Your task to perform on an android device: Show me the best rated 42 inch TV on Walmart. Image 0: 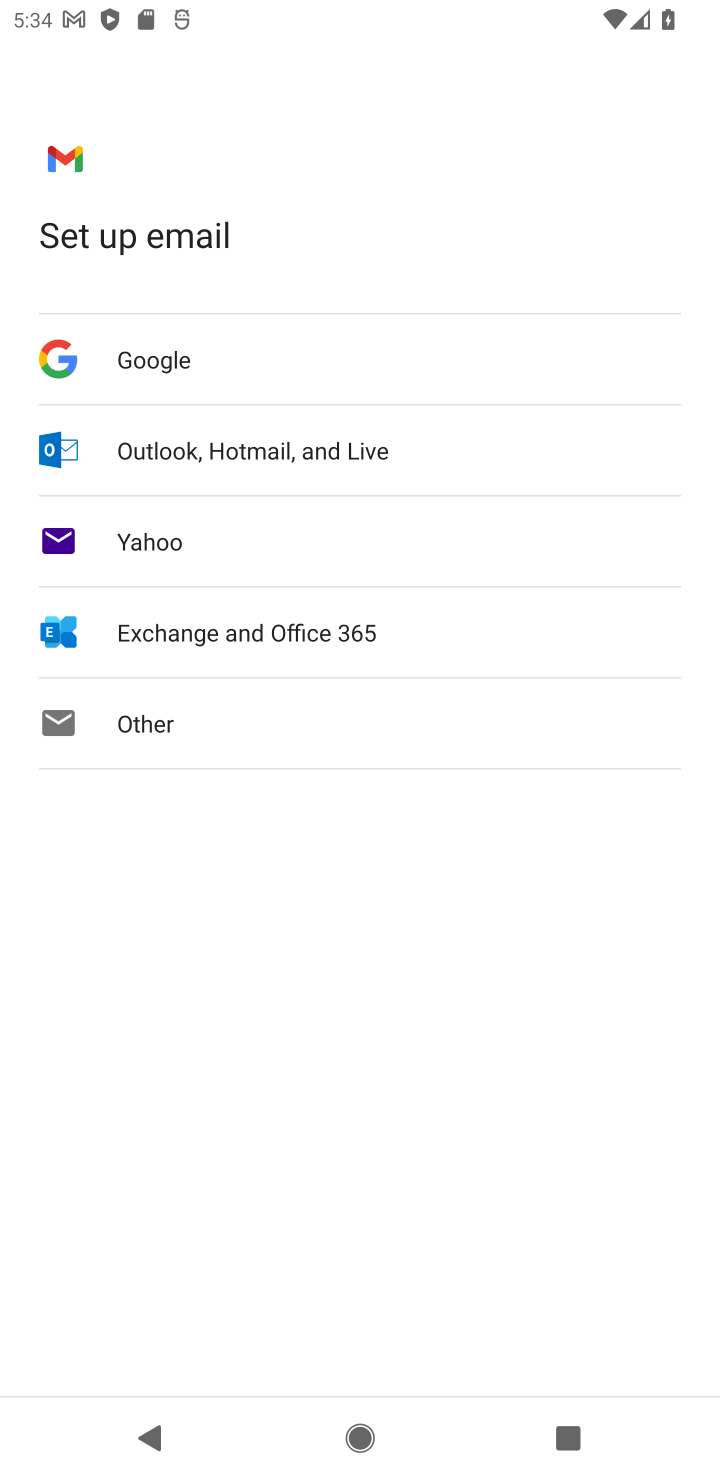
Step 0: press home button
Your task to perform on an android device: Show me the best rated 42 inch TV on Walmart. Image 1: 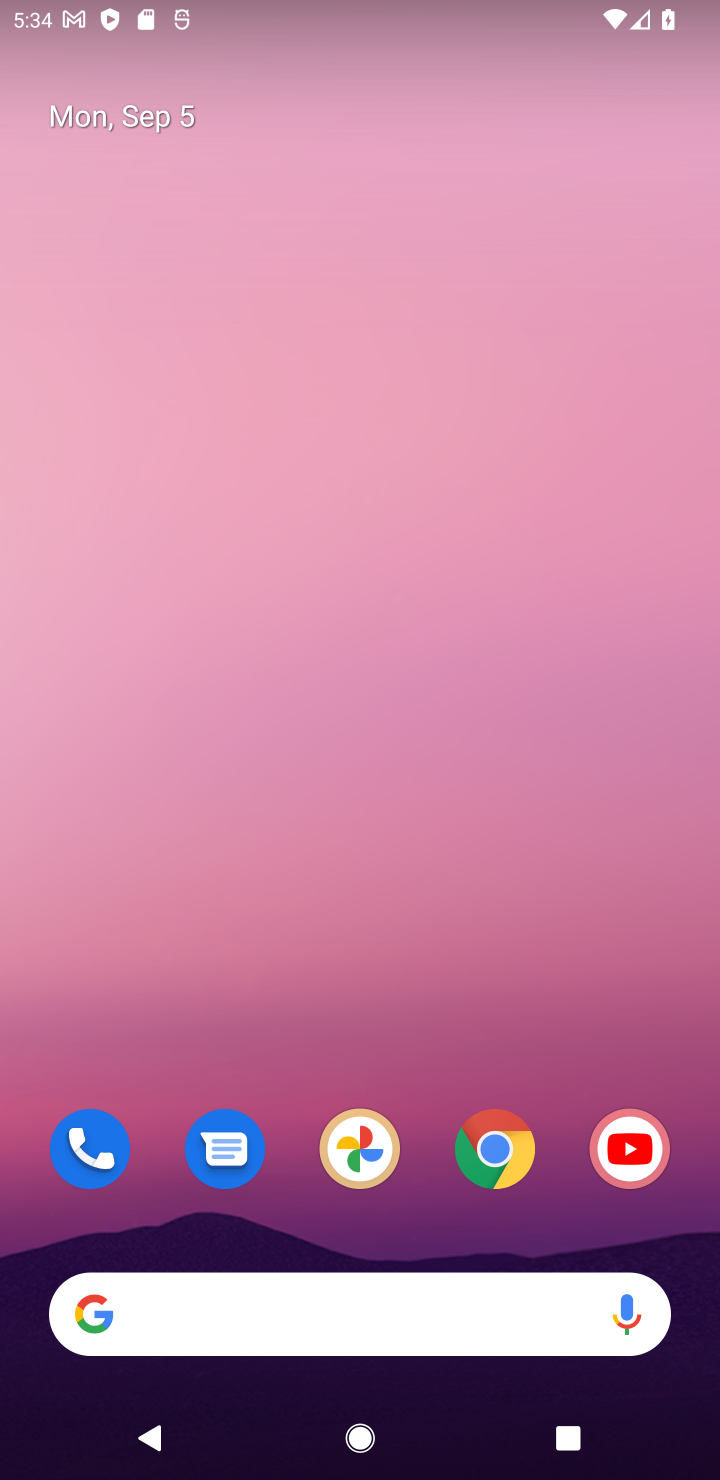
Step 1: click (504, 1149)
Your task to perform on an android device: Show me the best rated 42 inch TV on Walmart. Image 2: 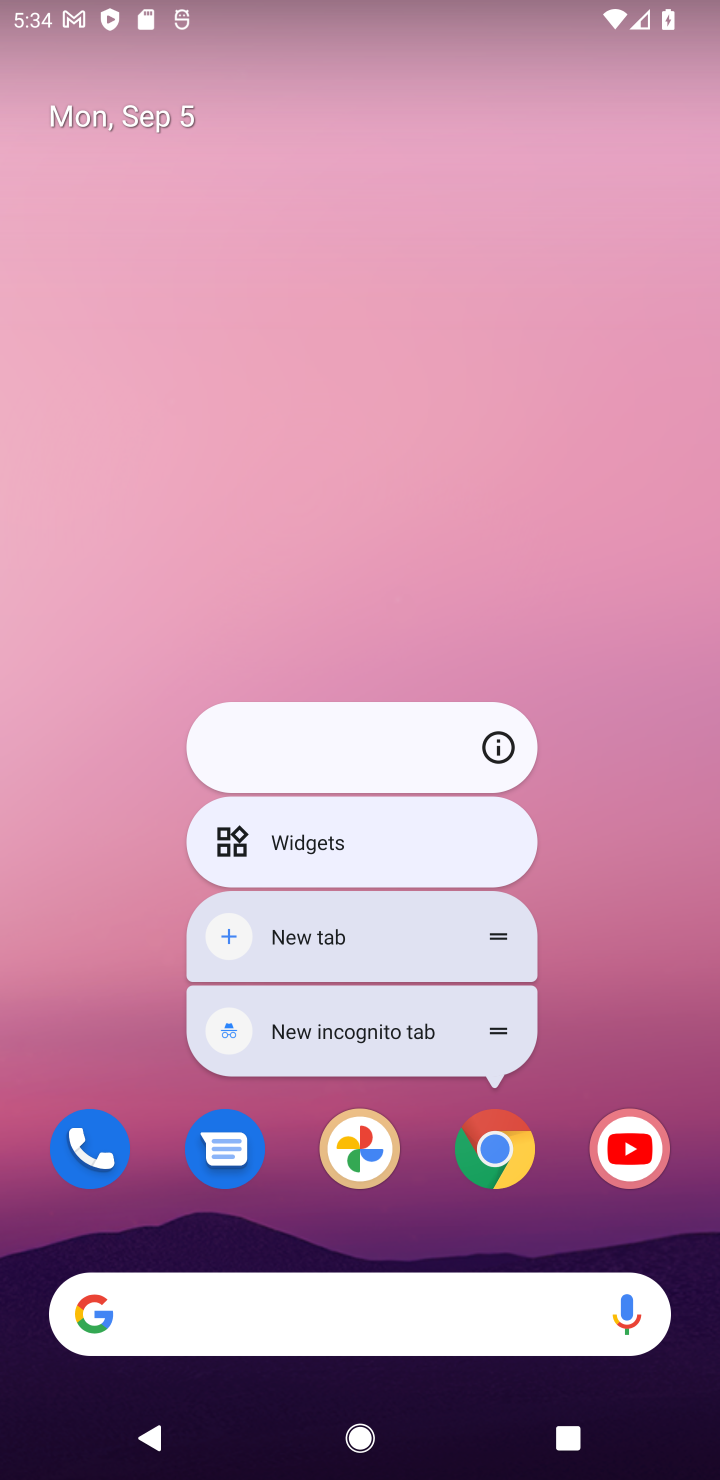
Step 2: click (491, 1162)
Your task to perform on an android device: Show me the best rated 42 inch TV on Walmart. Image 3: 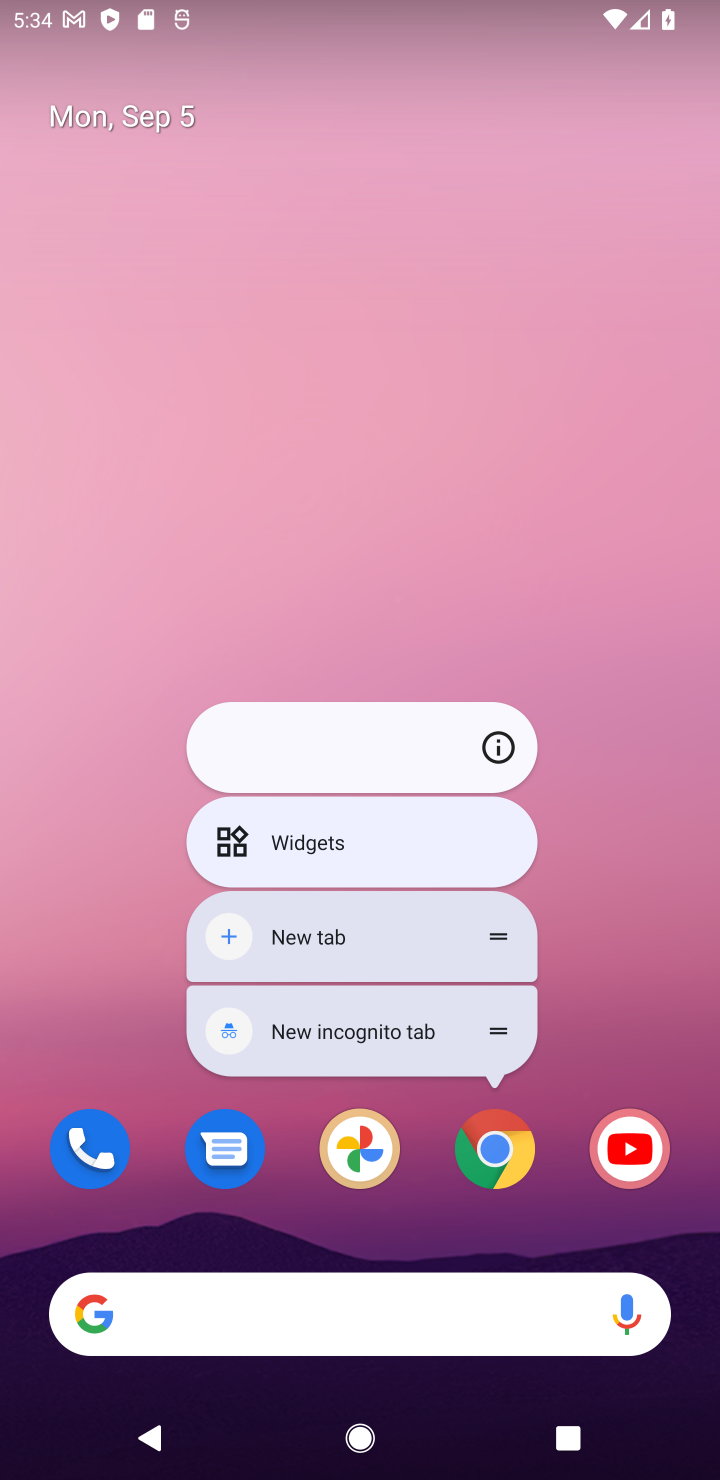
Step 3: click (491, 1156)
Your task to perform on an android device: Show me the best rated 42 inch TV on Walmart. Image 4: 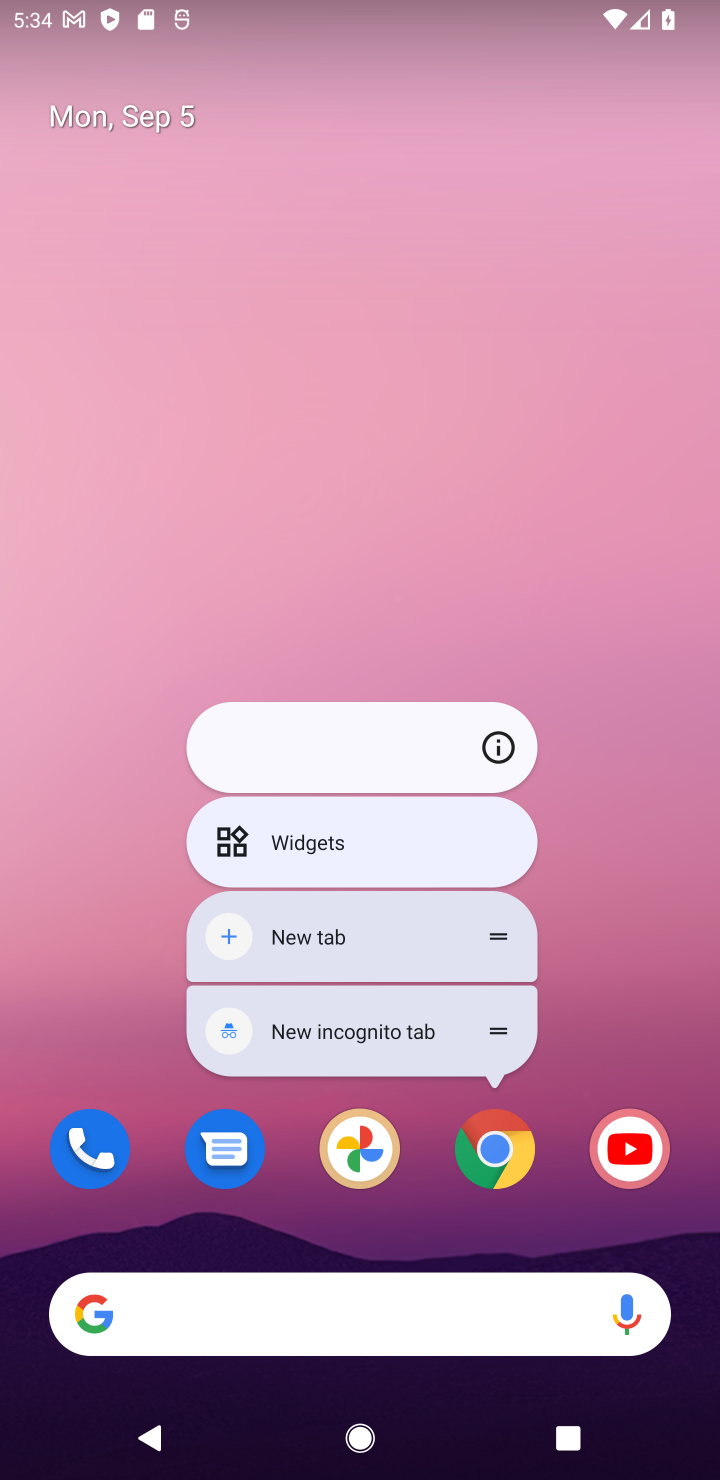
Step 4: click (651, 950)
Your task to perform on an android device: Show me the best rated 42 inch TV on Walmart. Image 5: 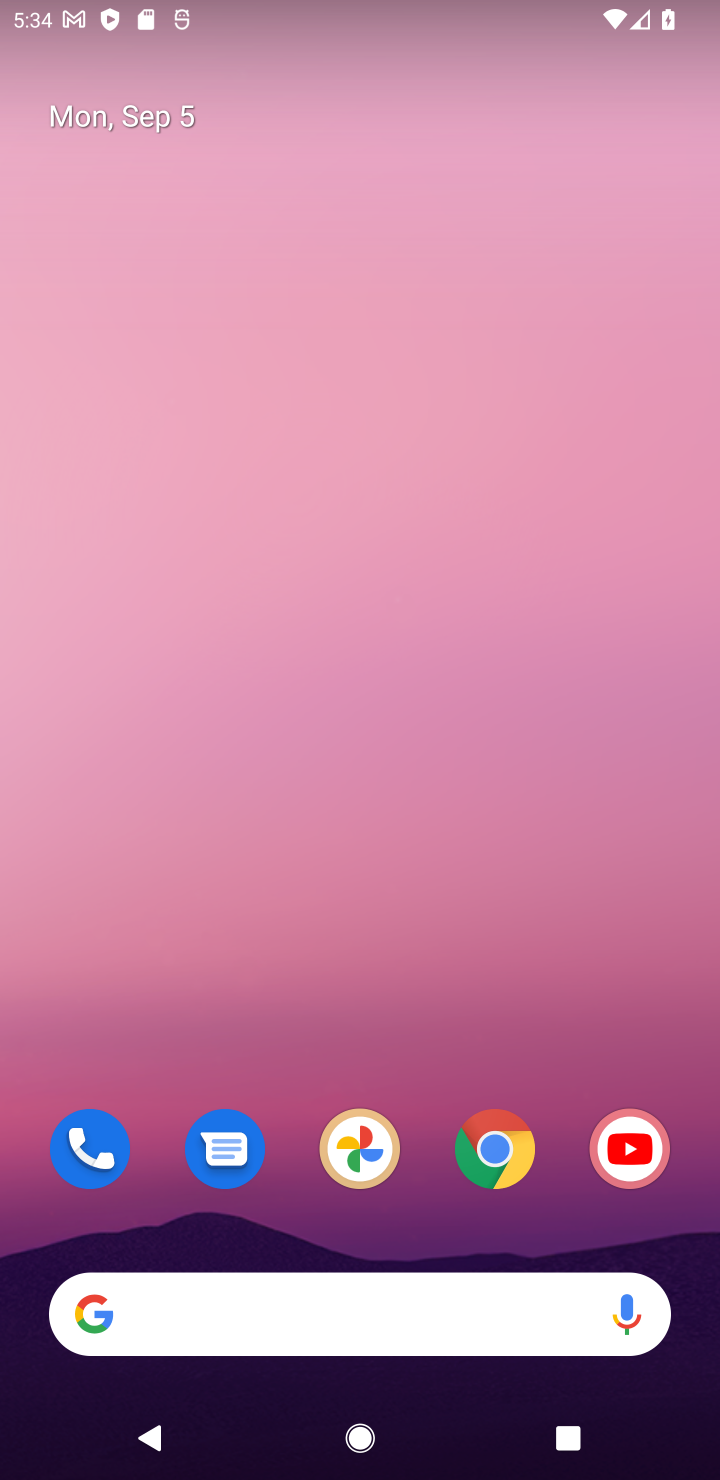
Step 5: click (494, 1156)
Your task to perform on an android device: Show me the best rated 42 inch TV on Walmart. Image 6: 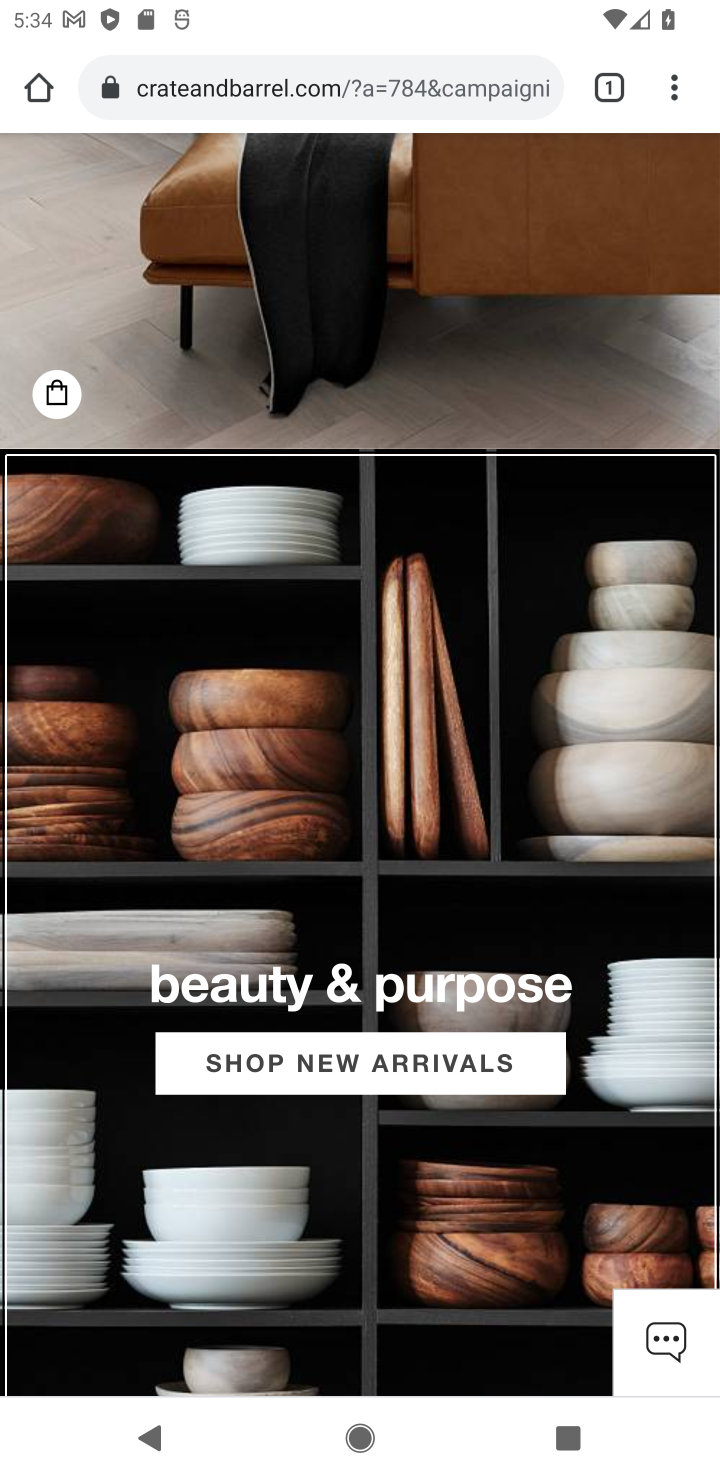
Step 6: click (319, 57)
Your task to perform on an android device: Show me the best rated 42 inch TV on Walmart. Image 7: 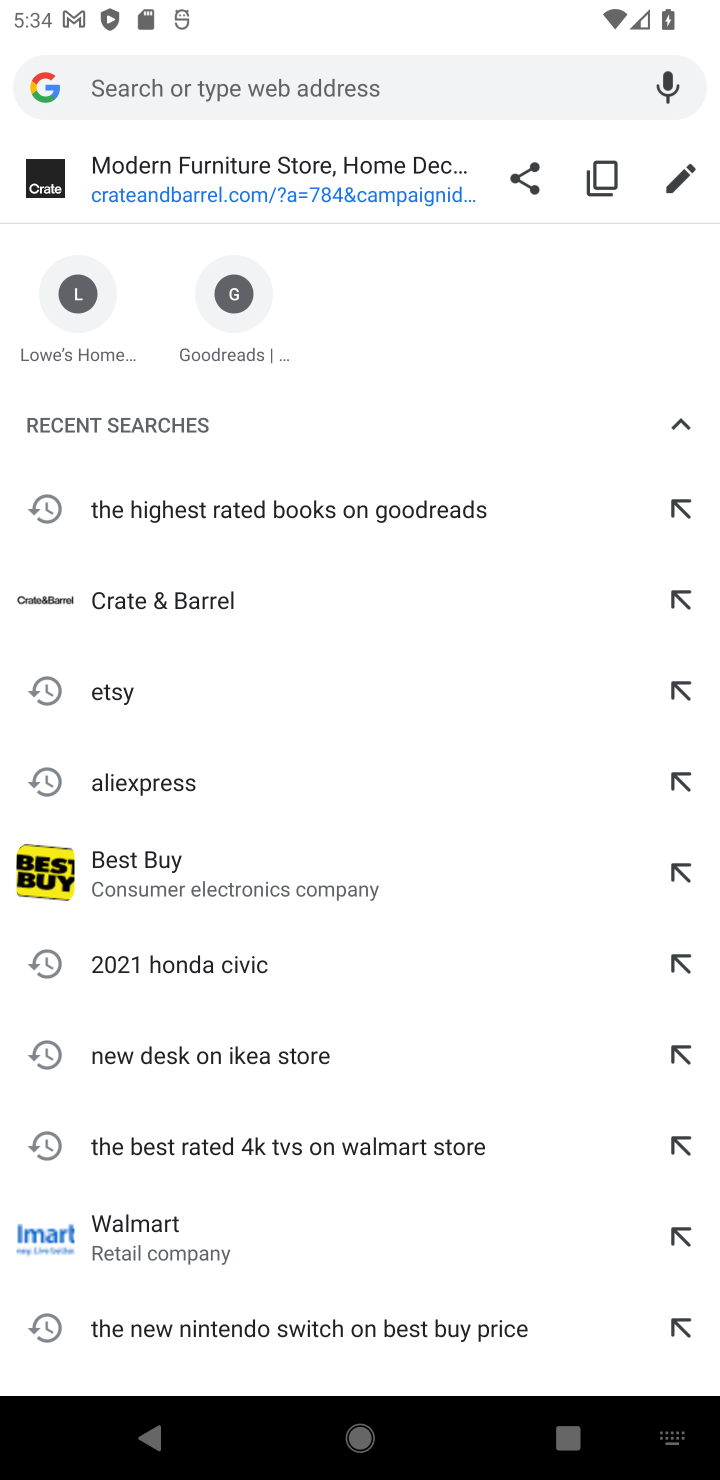
Step 7: type "Walmart"
Your task to perform on an android device: Show me the best rated 42 inch TV on Walmart. Image 8: 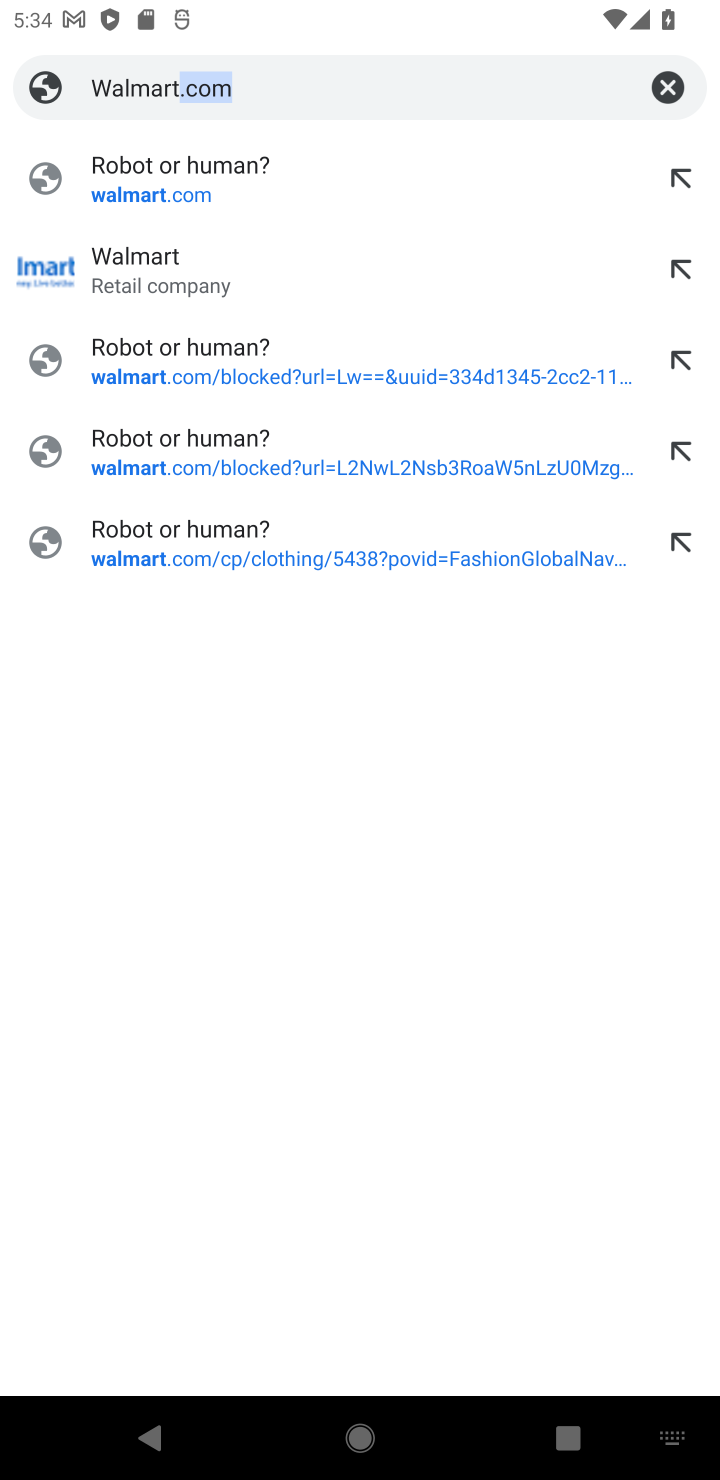
Step 8: click (143, 256)
Your task to perform on an android device: Show me the best rated 42 inch TV on Walmart. Image 9: 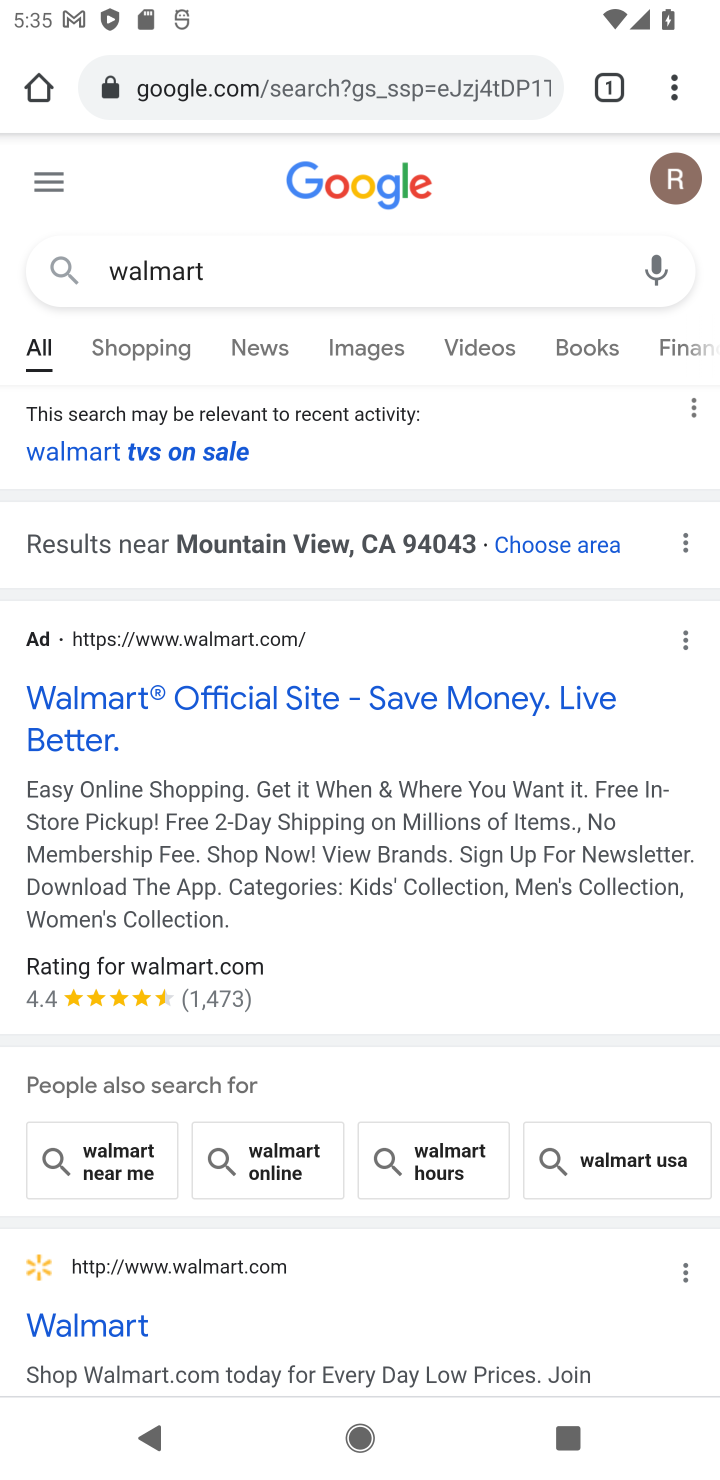
Step 9: click (220, 713)
Your task to perform on an android device: Show me the best rated 42 inch TV on Walmart. Image 10: 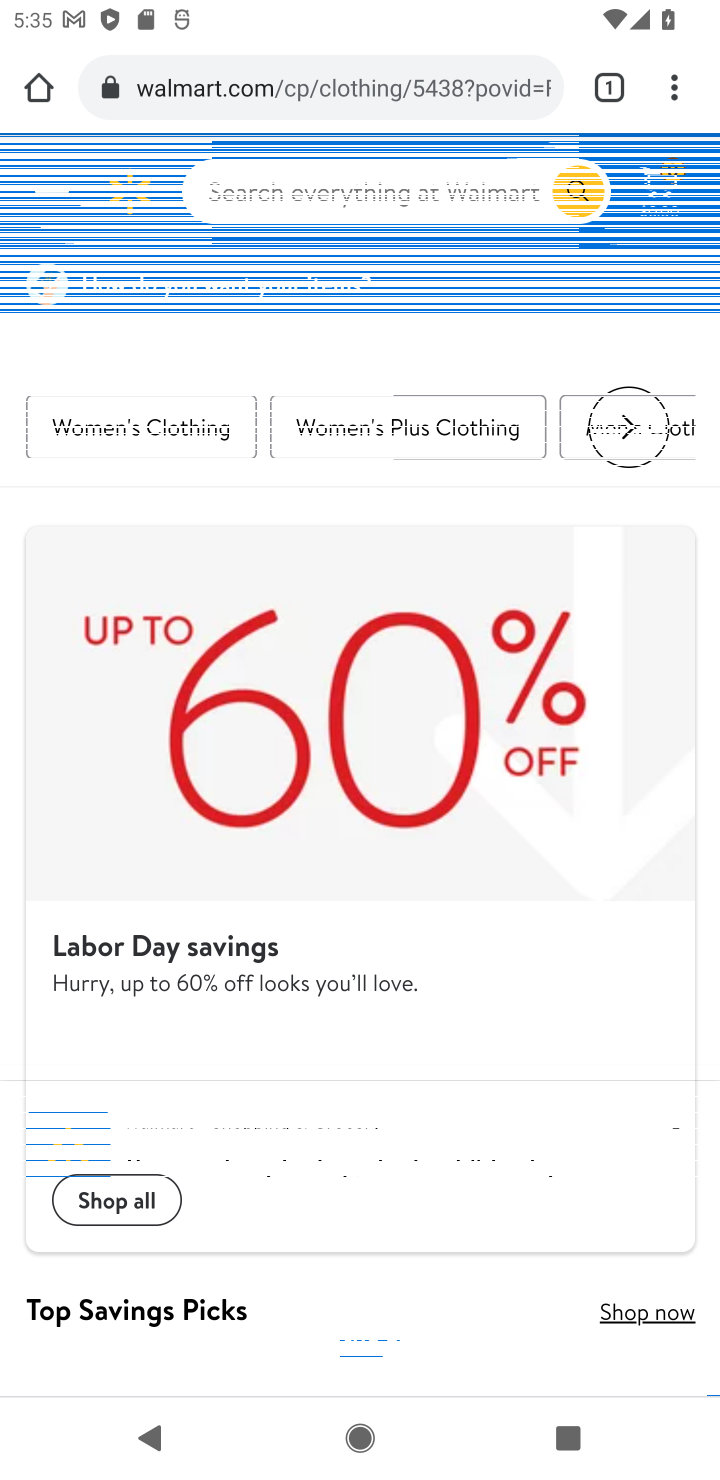
Step 10: click (317, 177)
Your task to perform on an android device: Show me the best rated 42 inch TV on Walmart. Image 11: 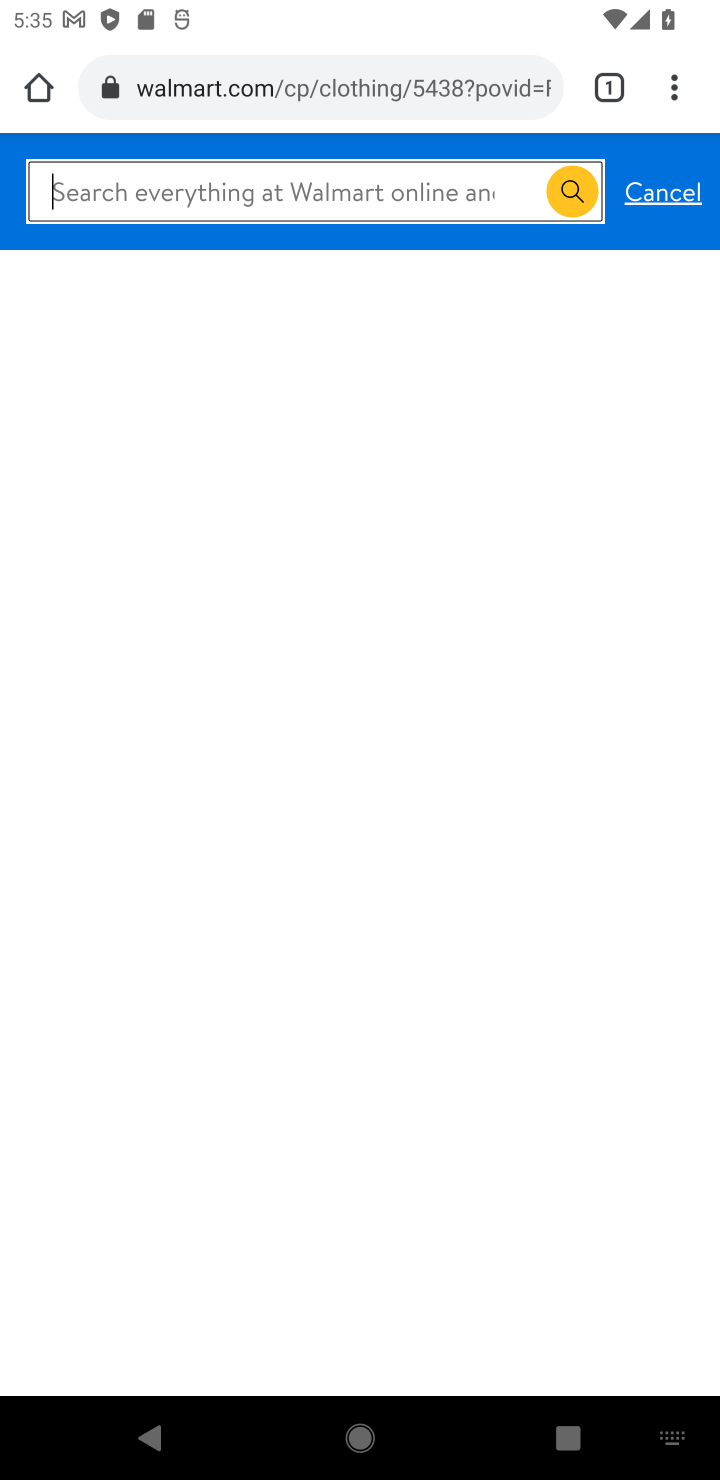
Step 11: type "42 inch TV"
Your task to perform on an android device: Show me the best rated 42 inch TV on Walmart. Image 12: 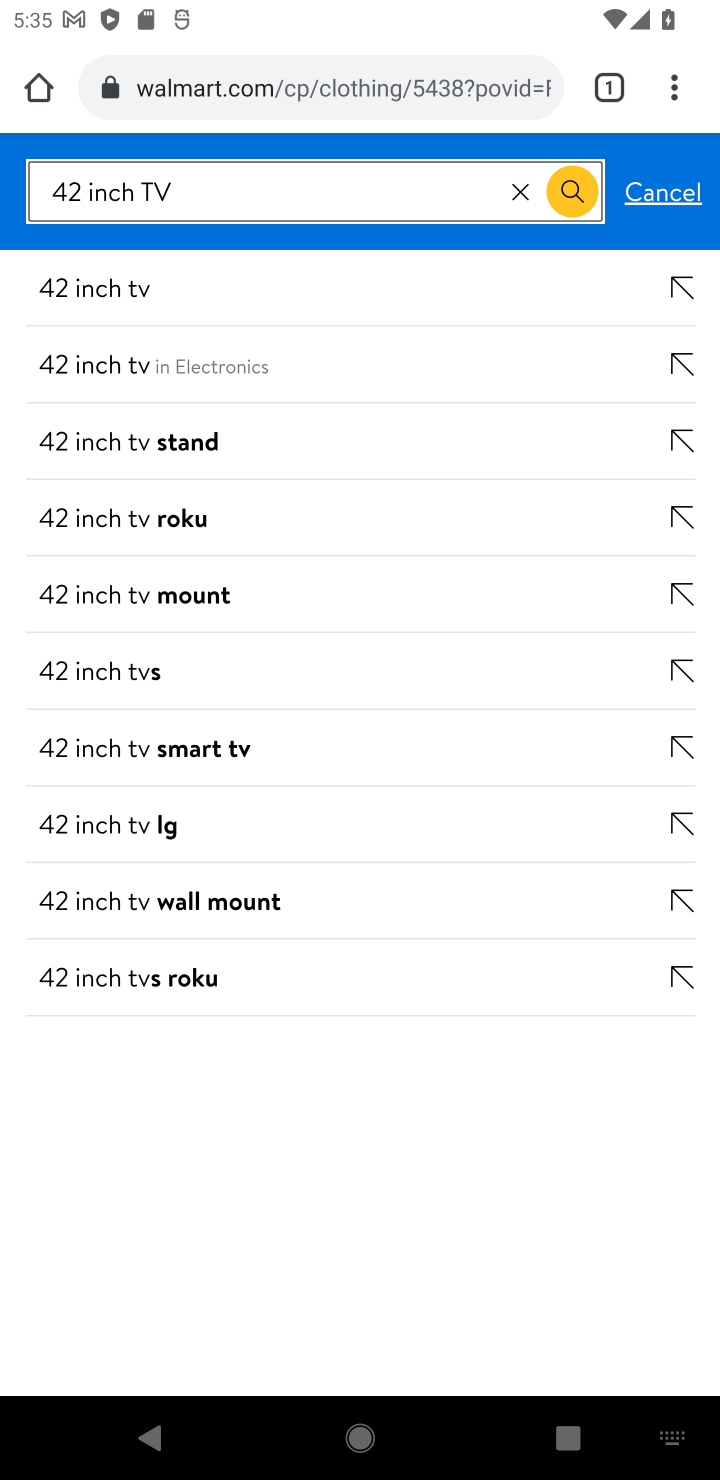
Step 12: click (107, 293)
Your task to perform on an android device: Show me the best rated 42 inch TV on Walmart. Image 13: 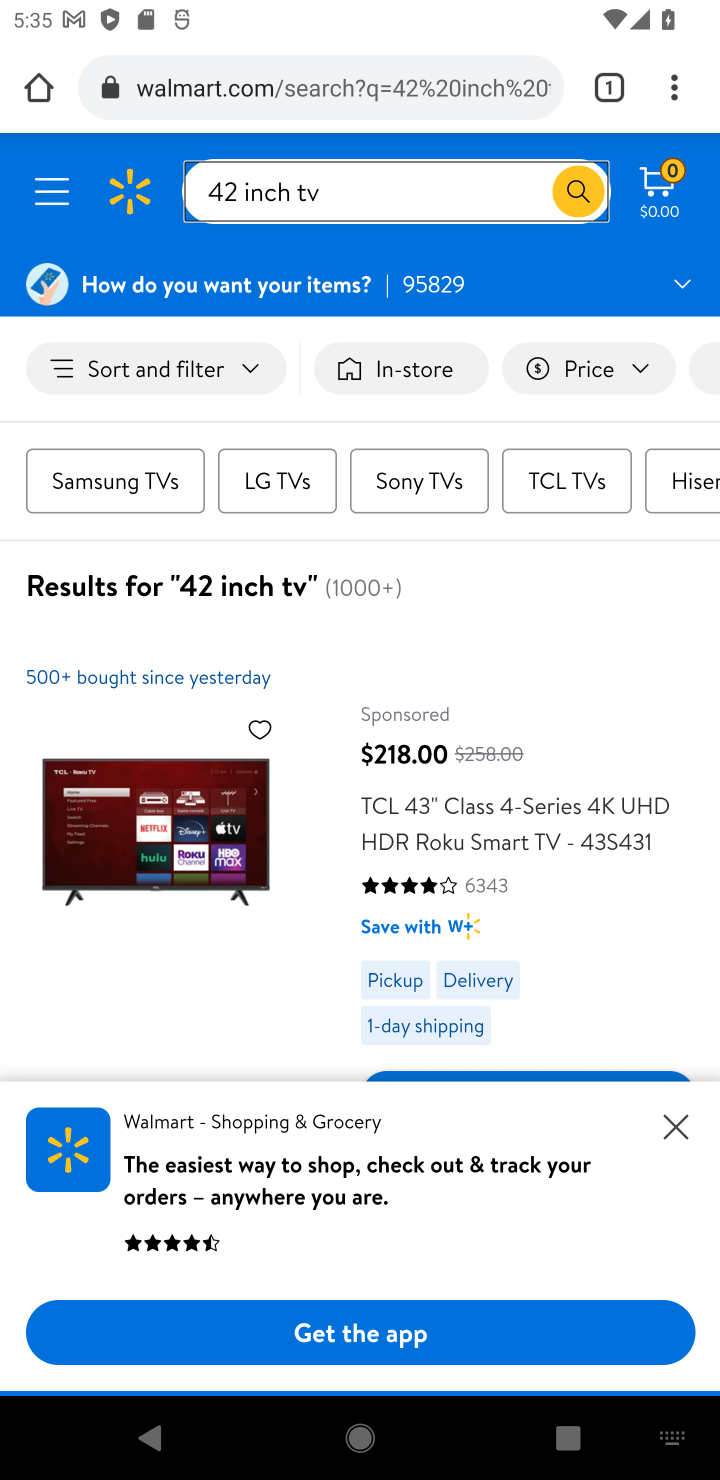
Step 13: click (241, 362)
Your task to perform on an android device: Show me the best rated 42 inch TV on Walmart. Image 14: 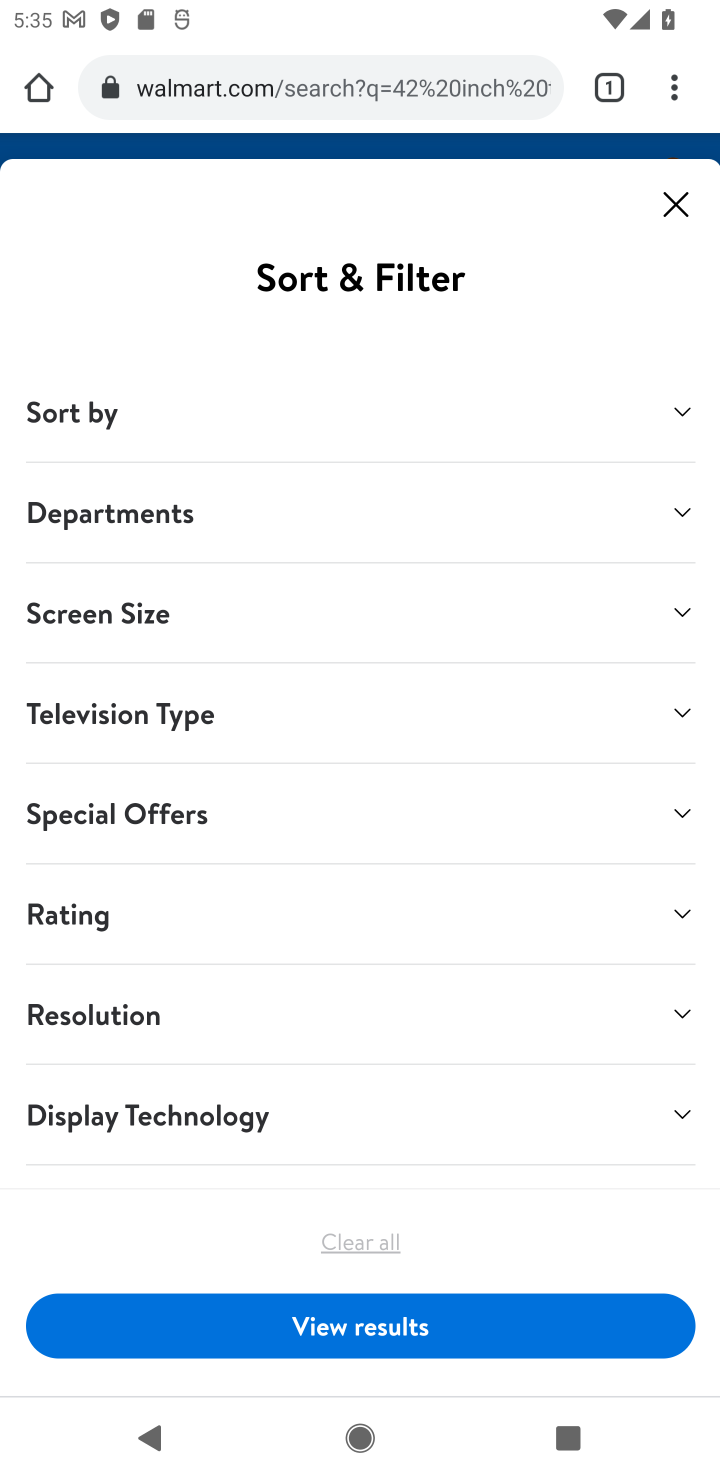
Step 14: click (124, 408)
Your task to perform on an android device: Show me the best rated 42 inch TV on Walmart. Image 15: 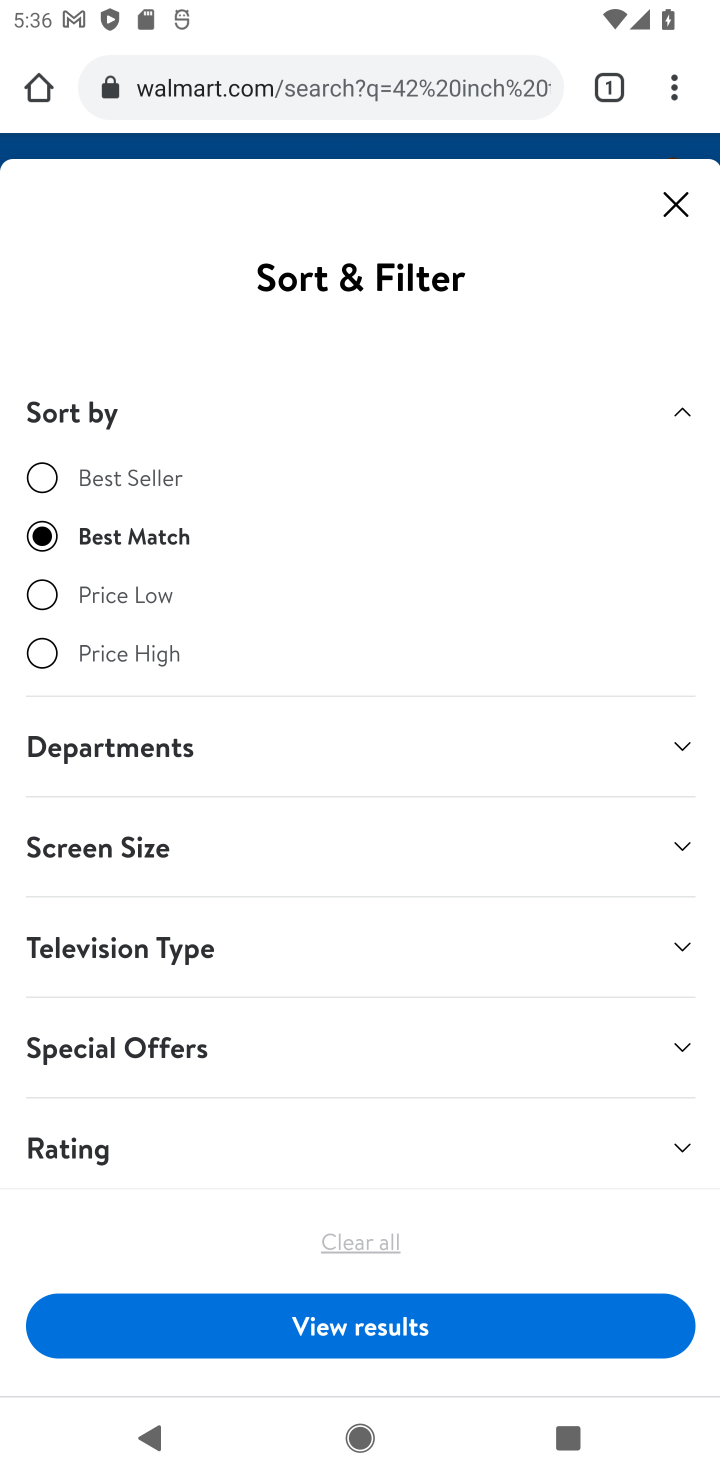
Step 15: click (672, 1154)
Your task to perform on an android device: Show me the best rated 42 inch TV on Walmart. Image 16: 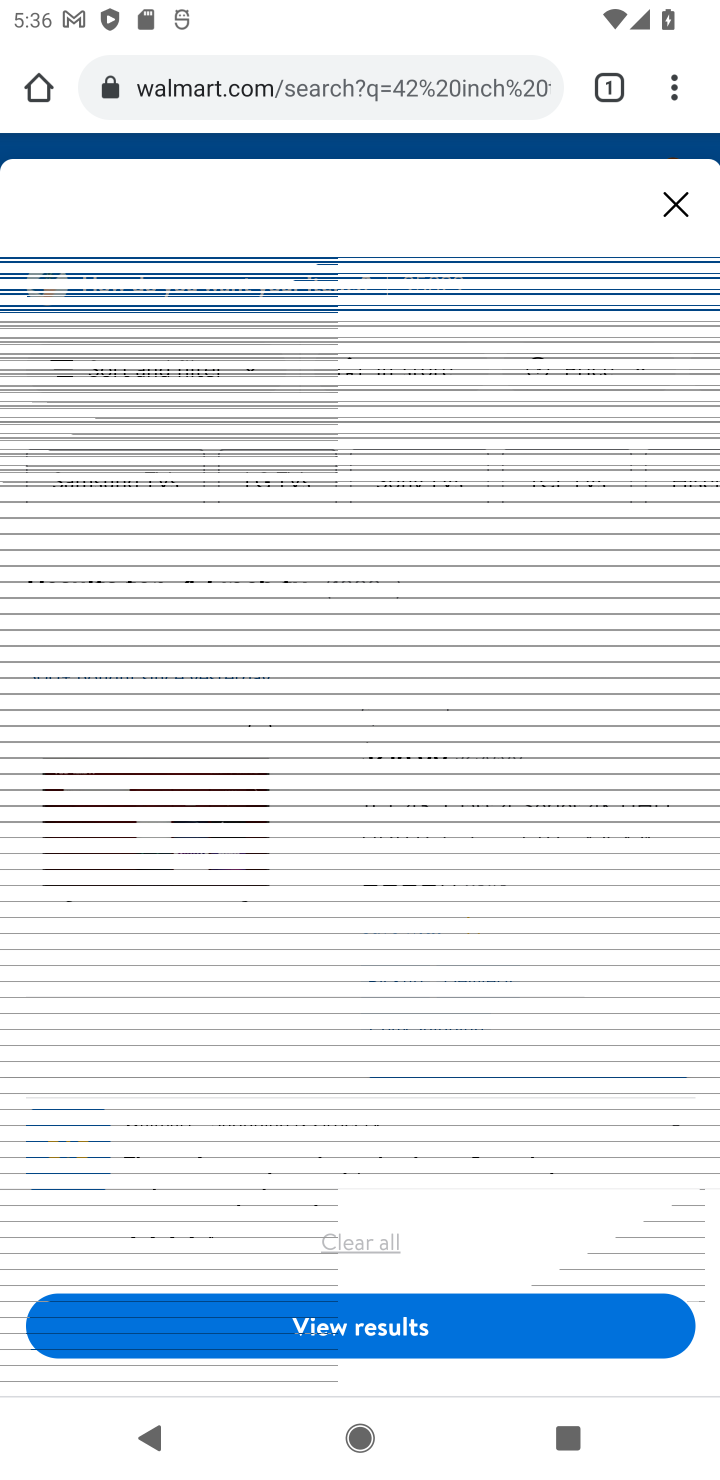
Step 16: drag from (301, 1029) to (346, 611)
Your task to perform on an android device: Show me the best rated 42 inch TV on Walmart. Image 17: 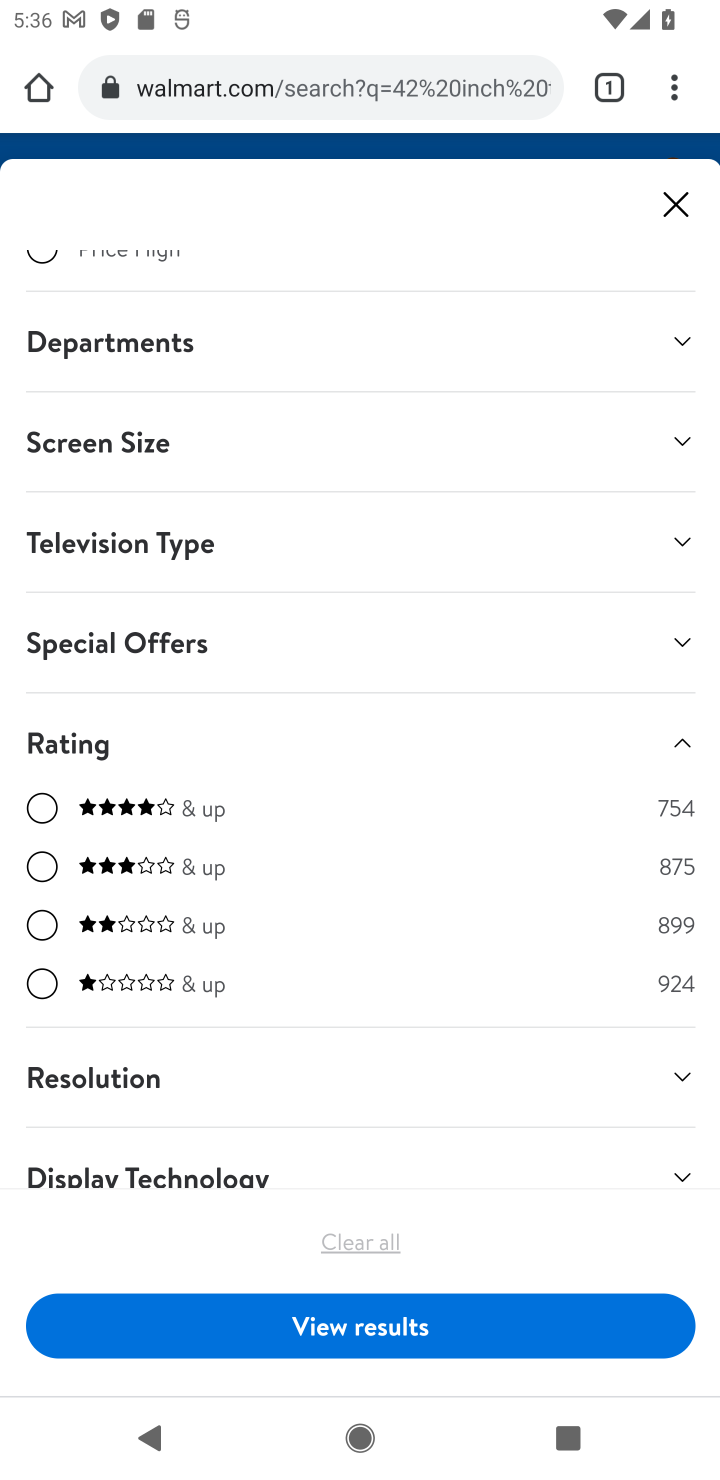
Step 17: click (38, 810)
Your task to perform on an android device: Show me the best rated 42 inch TV on Walmart. Image 18: 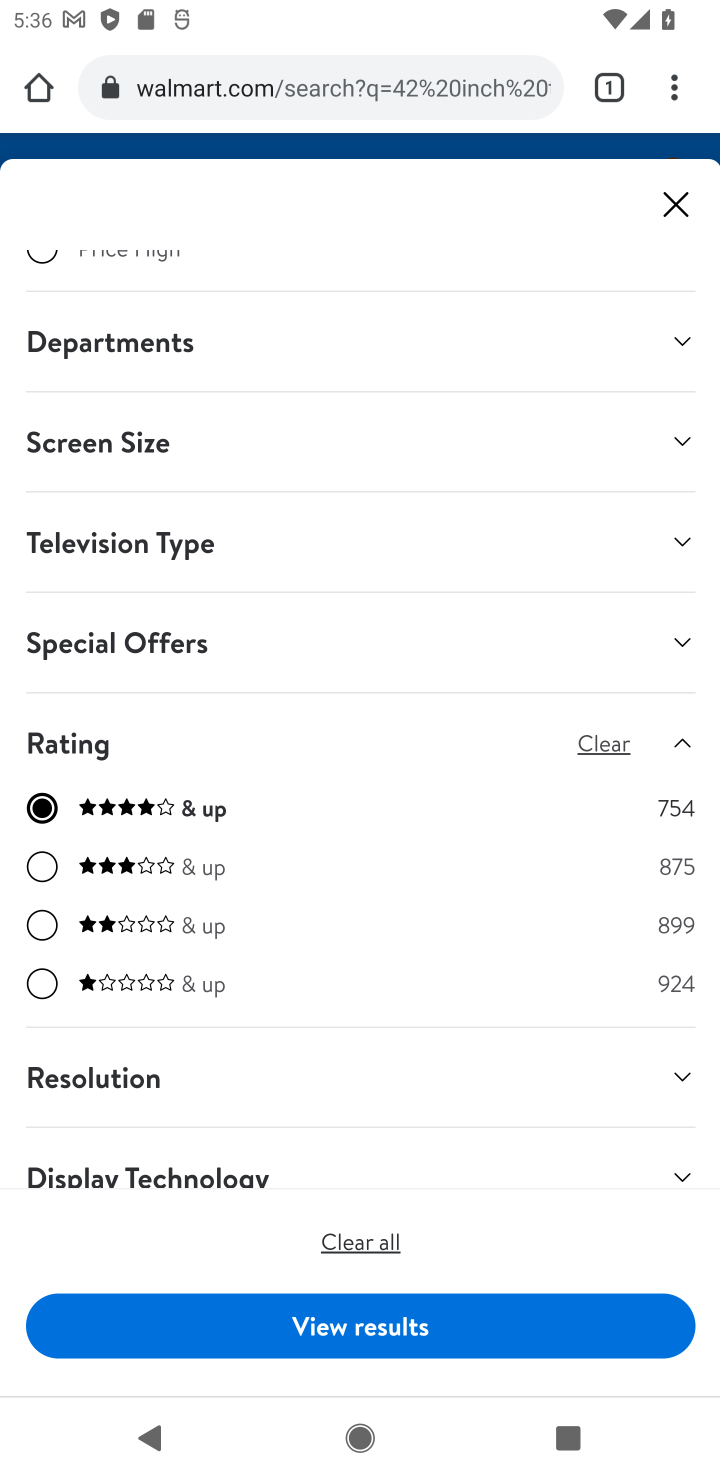
Step 18: click (337, 1326)
Your task to perform on an android device: Show me the best rated 42 inch TV on Walmart. Image 19: 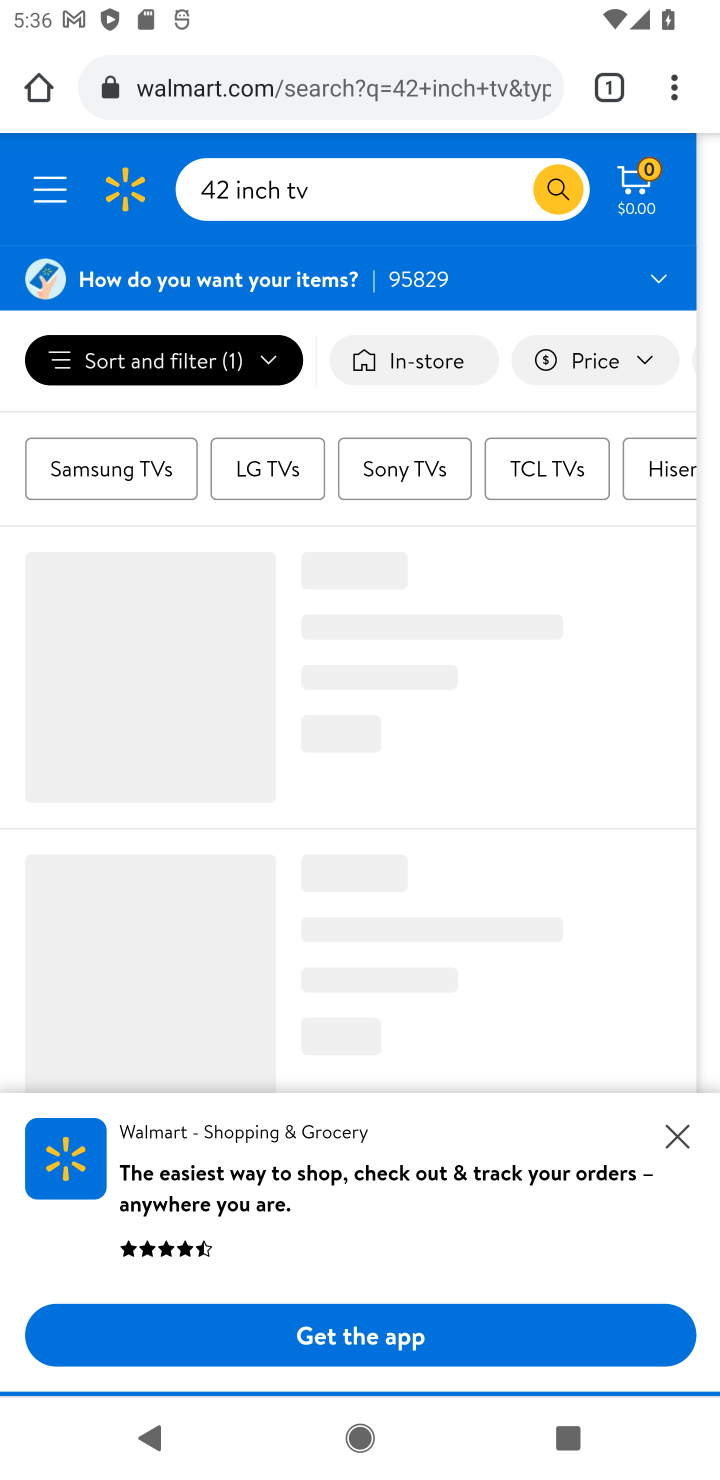
Step 19: click (673, 1127)
Your task to perform on an android device: Show me the best rated 42 inch TV on Walmart. Image 20: 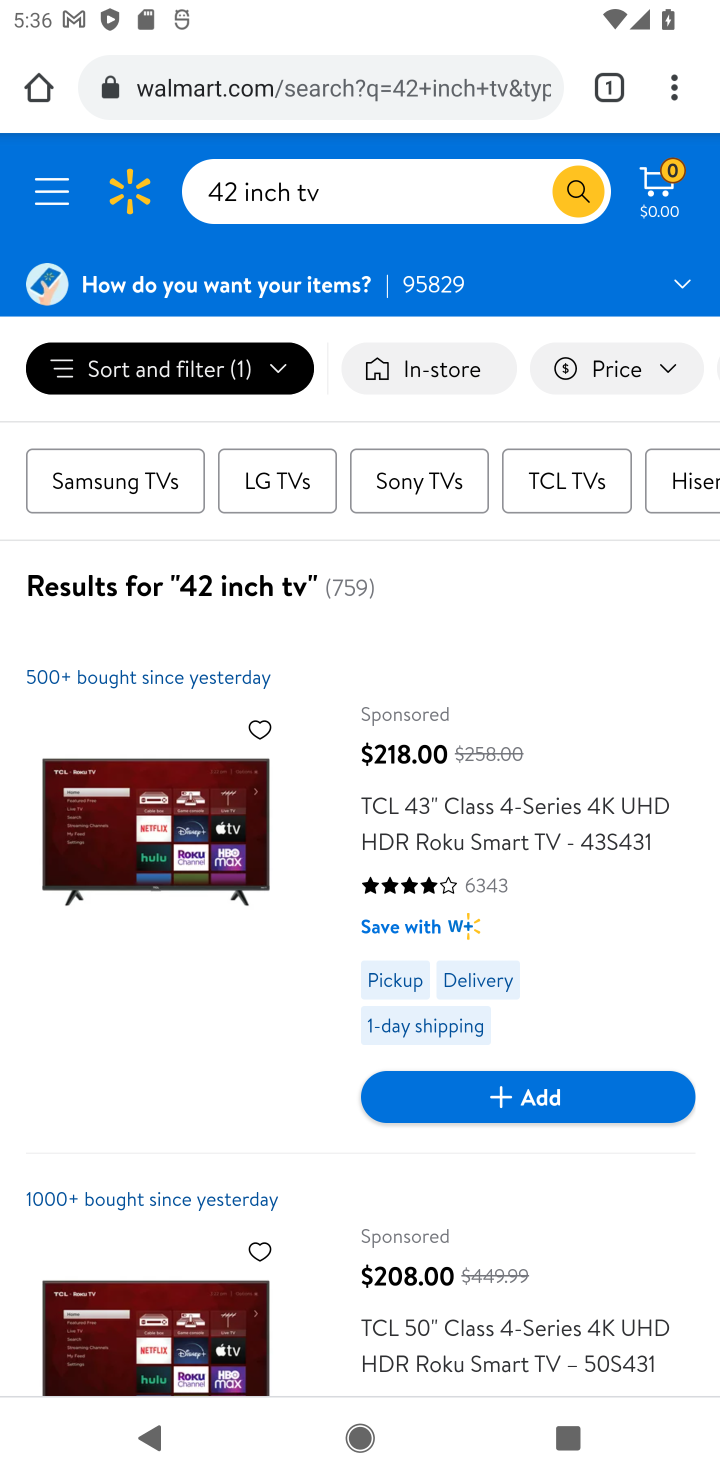
Step 20: task complete